Your task to perform on an android device: Open Google Chrome and open the bookmarks view Image 0: 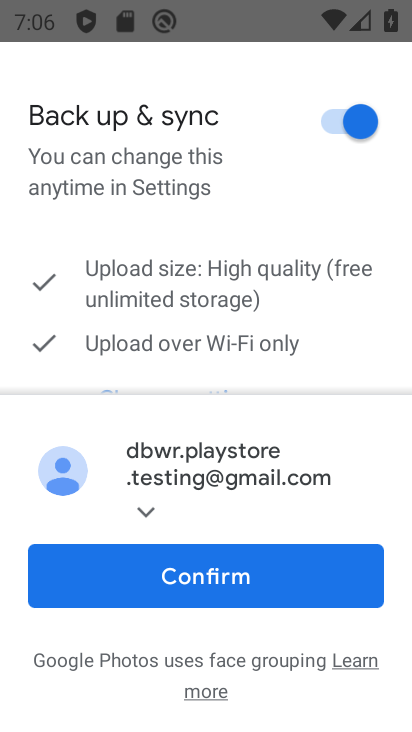
Step 0: press home button
Your task to perform on an android device: Open Google Chrome and open the bookmarks view Image 1: 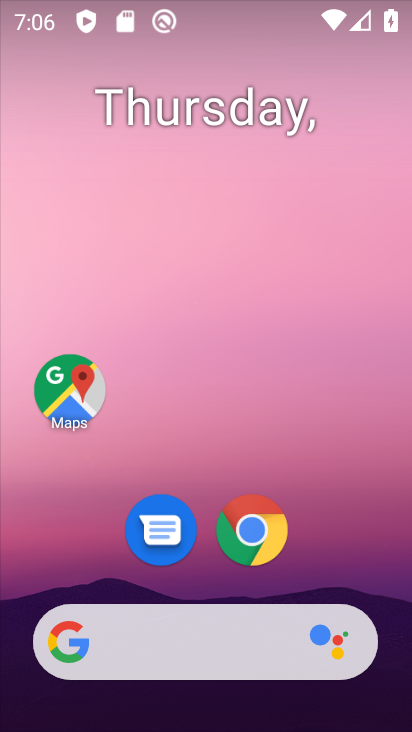
Step 1: drag from (239, 681) to (281, 342)
Your task to perform on an android device: Open Google Chrome and open the bookmarks view Image 2: 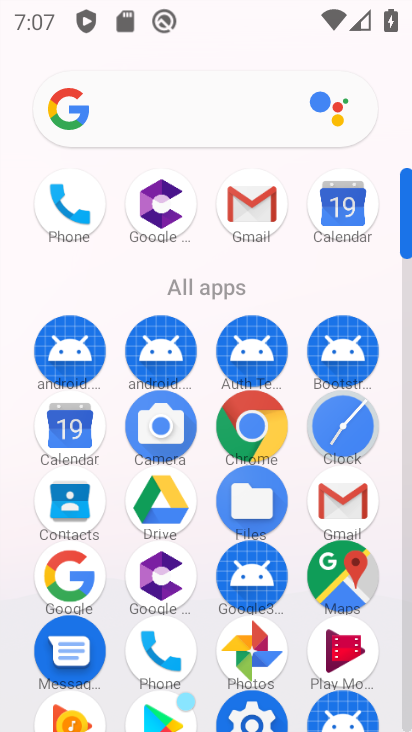
Step 2: click (237, 435)
Your task to perform on an android device: Open Google Chrome and open the bookmarks view Image 3: 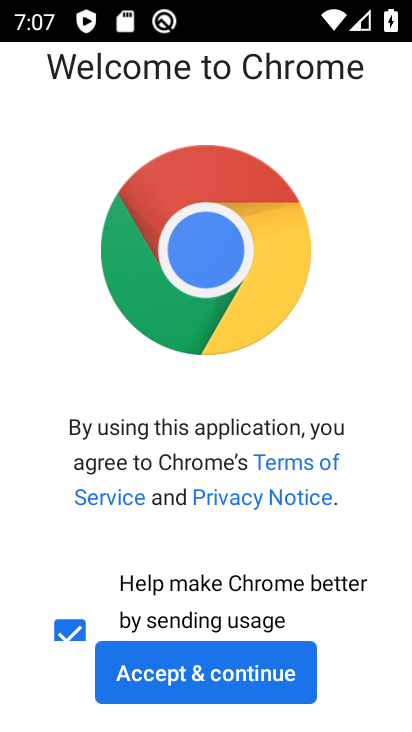
Step 3: click (290, 663)
Your task to perform on an android device: Open Google Chrome and open the bookmarks view Image 4: 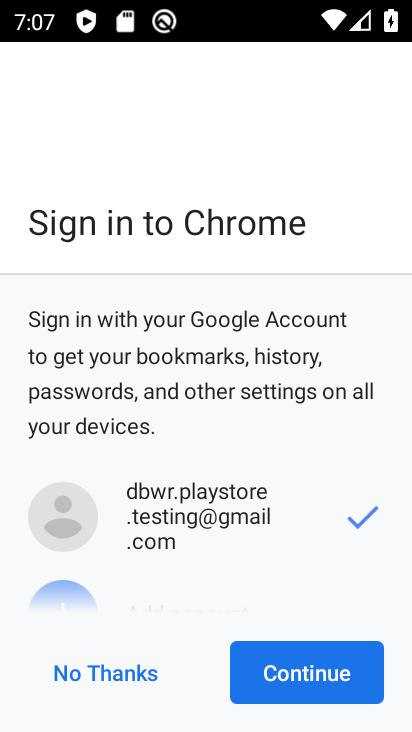
Step 4: click (333, 694)
Your task to perform on an android device: Open Google Chrome and open the bookmarks view Image 5: 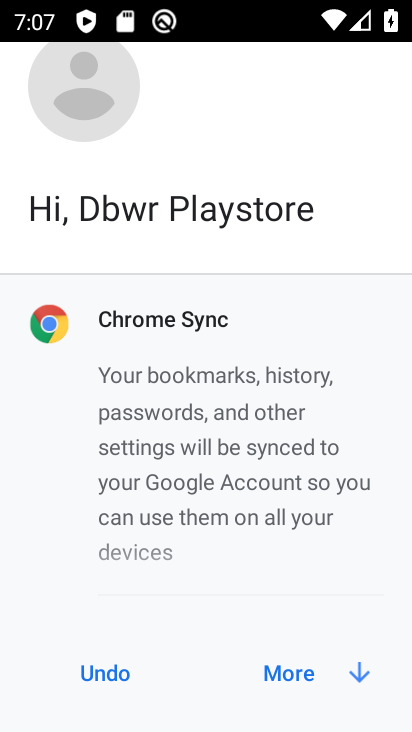
Step 5: click (354, 676)
Your task to perform on an android device: Open Google Chrome and open the bookmarks view Image 6: 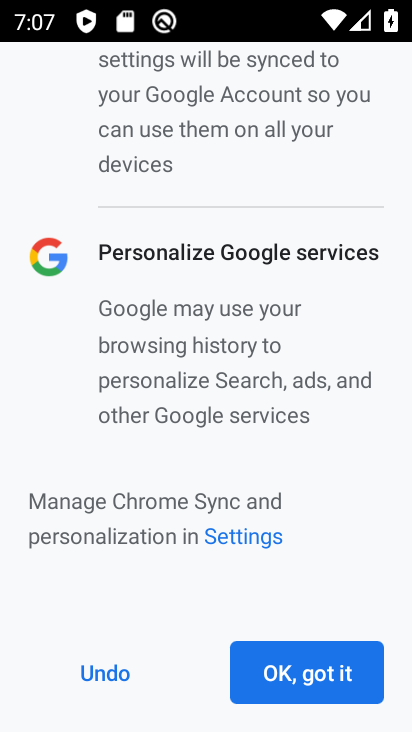
Step 6: click (354, 678)
Your task to perform on an android device: Open Google Chrome and open the bookmarks view Image 7: 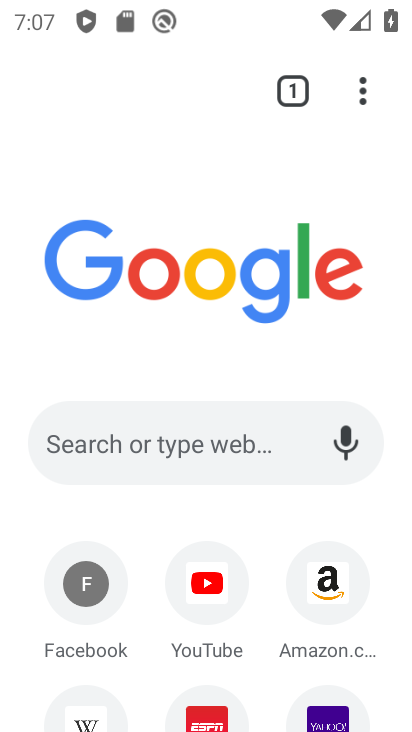
Step 7: click (355, 108)
Your task to perform on an android device: Open Google Chrome and open the bookmarks view Image 8: 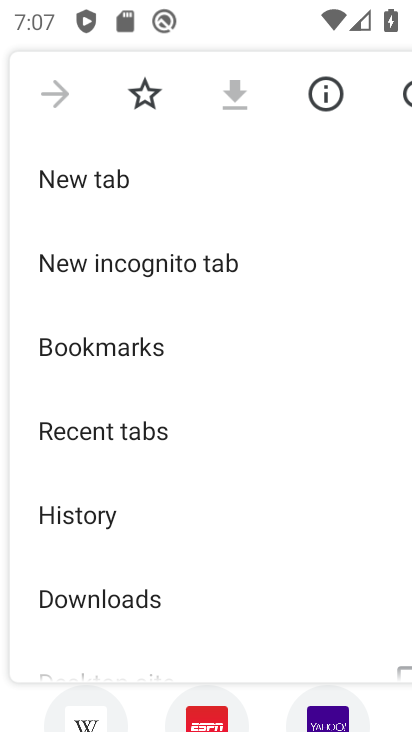
Step 8: click (157, 355)
Your task to perform on an android device: Open Google Chrome and open the bookmarks view Image 9: 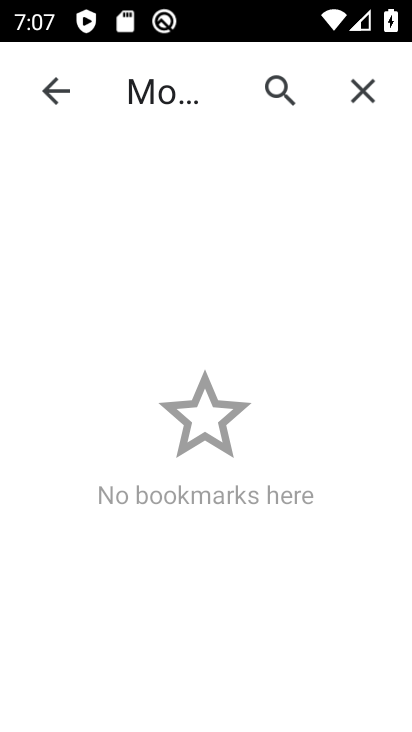
Step 9: task complete